Your task to perform on an android device: turn on javascript in the chrome app Image 0: 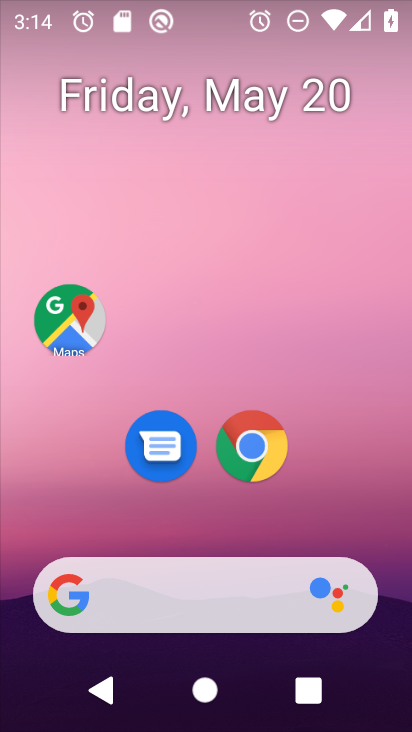
Step 0: click (249, 454)
Your task to perform on an android device: turn on javascript in the chrome app Image 1: 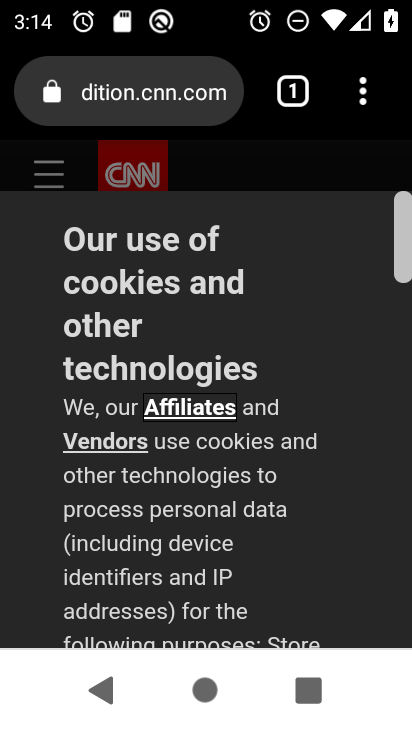
Step 1: click (363, 93)
Your task to perform on an android device: turn on javascript in the chrome app Image 2: 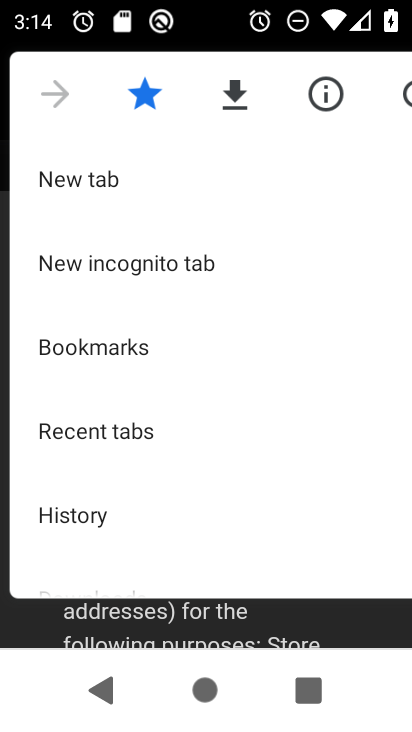
Step 2: drag from (158, 488) to (183, 116)
Your task to perform on an android device: turn on javascript in the chrome app Image 3: 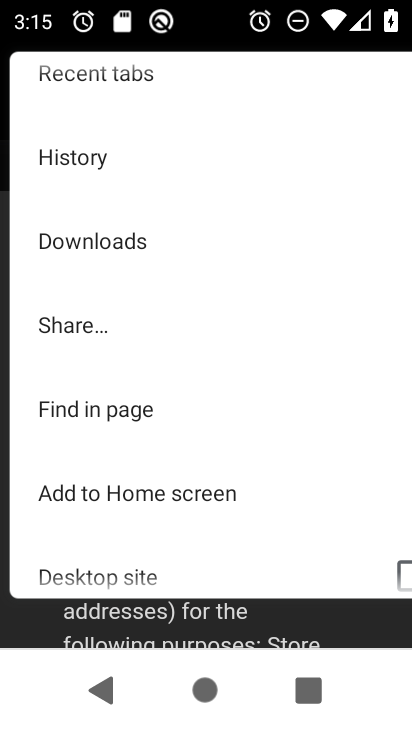
Step 3: drag from (175, 411) to (175, 122)
Your task to perform on an android device: turn on javascript in the chrome app Image 4: 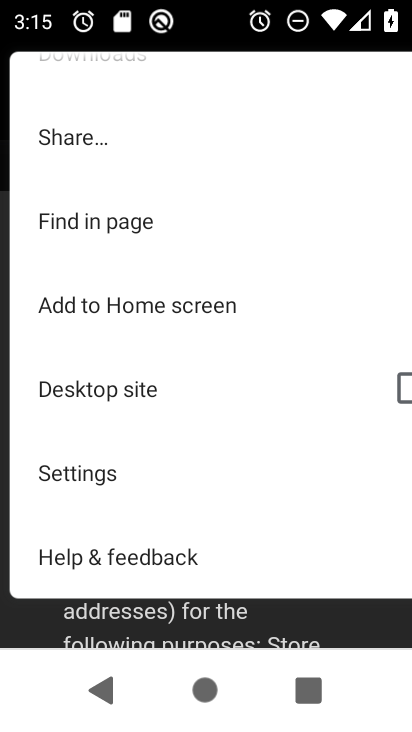
Step 4: click (87, 472)
Your task to perform on an android device: turn on javascript in the chrome app Image 5: 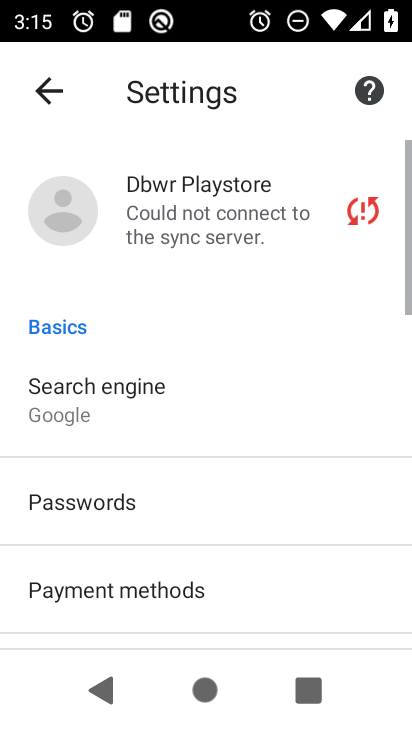
Step 5: drag from (242, 544) to (211, 103)
Your task to perform on an android device: turn on javascript in the chrome app Image 6: 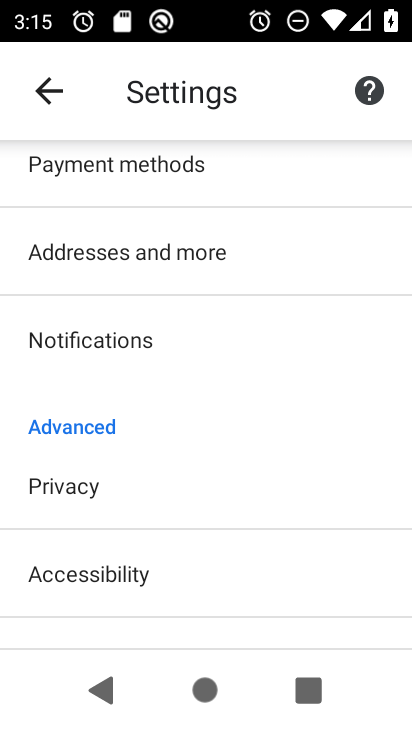
Step 6: drag from (195, 480) to (208, 233)
Your task to perform on an android device: turn on javascript in the chrome app Image 7: 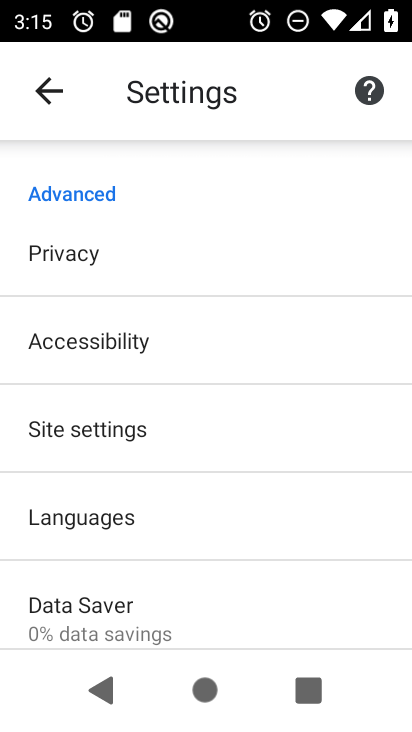
Step 7: click (110, 430)
Your task to perform on an android device: turn on javascript in the chrome app Image 8: 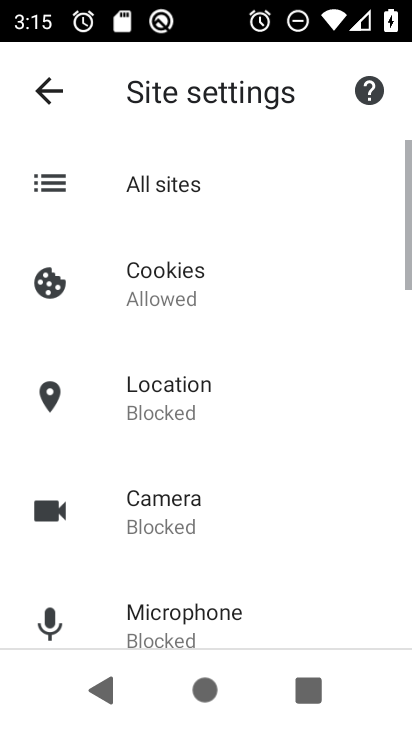
Step 8: drag from (249, 557) to (249, 198)
Your task to perform on an android device: turn on javascript in the chrome app Image 9: 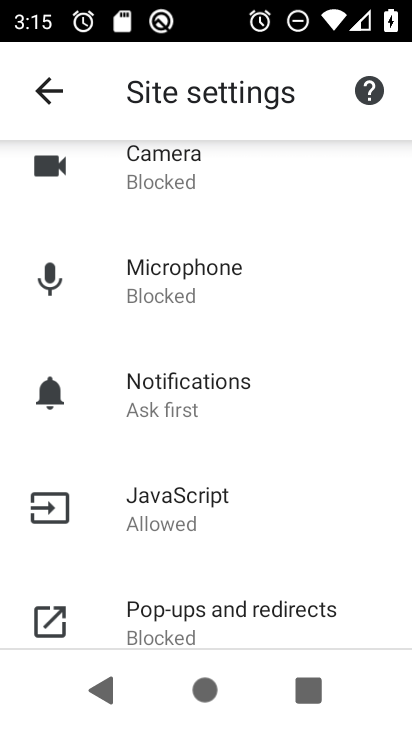
Step 9: click (198, 511)
Your task to perform on an android device: turn on javascript in the chrome app Image 10: 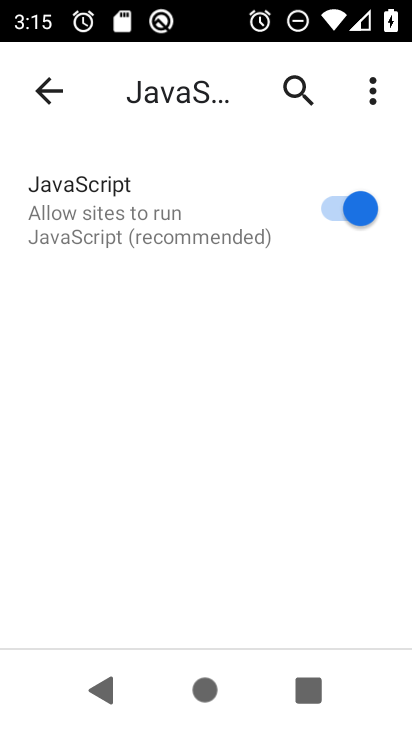
Step 10: task complete